Your task to perform on an android device: add a contact Image 0: 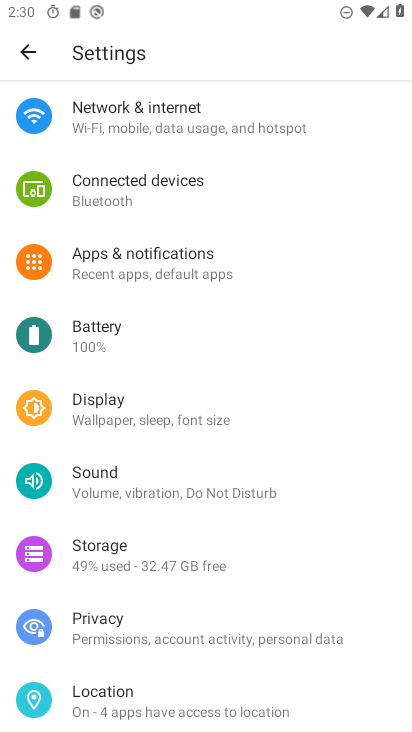
Step 0: press home button
Your task to perform on an android device: add a contact Image 1: 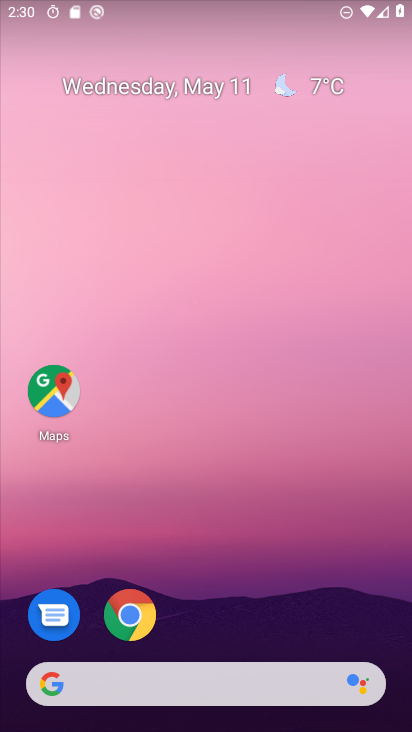
Step 1: drag from (195, 657) to (177, 147)
Your task to perform on an android device: add a contact Image 2: 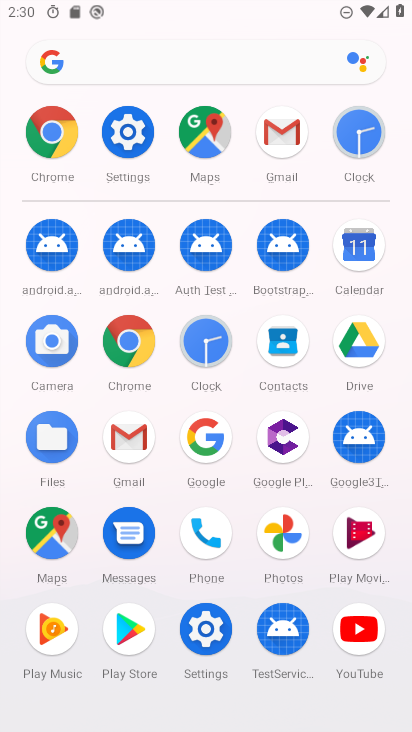
Step 2: click (290, 363)
Your task to perform on an android device: add a contact Image 3: 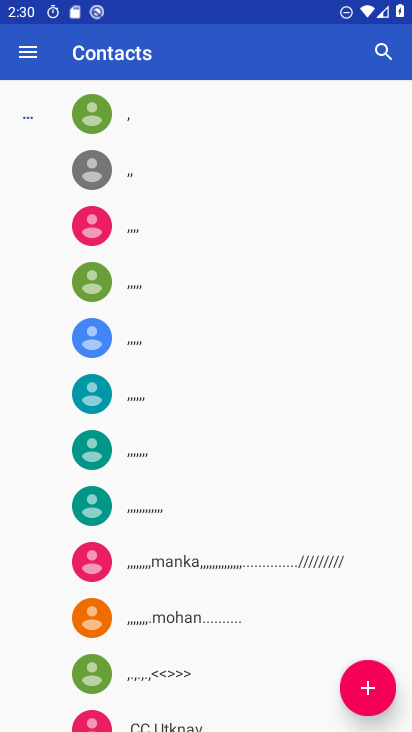
Step 3: click (358, 679)
Your task to perform on an android device: add a contact Image 4: 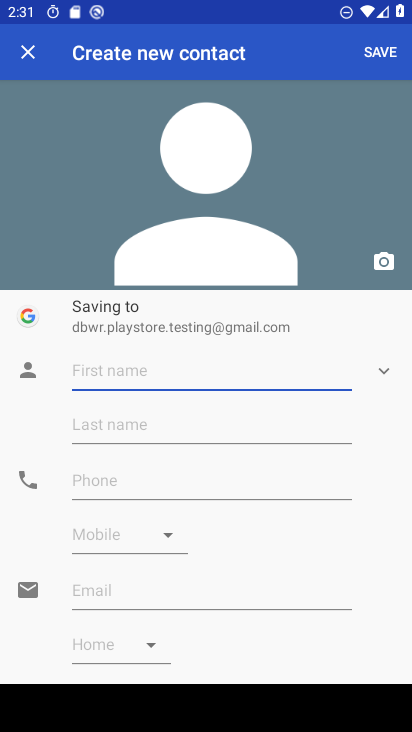
Step 4: type "zjdbvbds"
Your task to perform on an android device: add a contact Image 5: 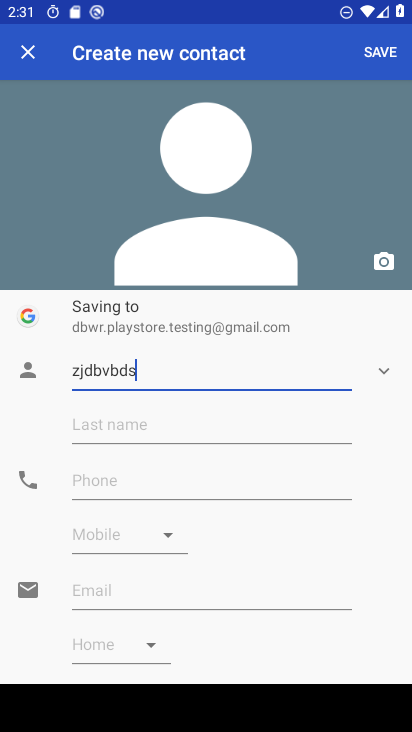
Step 5: click (173, 480)
Your task to perform on an android device: add a contact Image 6: 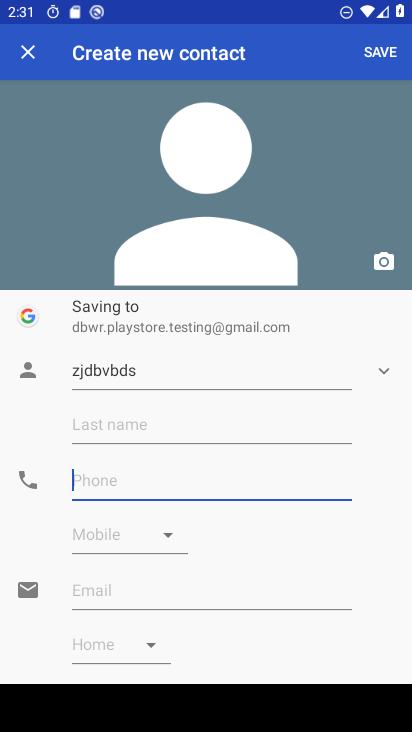
Step 6: type "833723"
Your task to perform on an android device: add a contact Image 7: 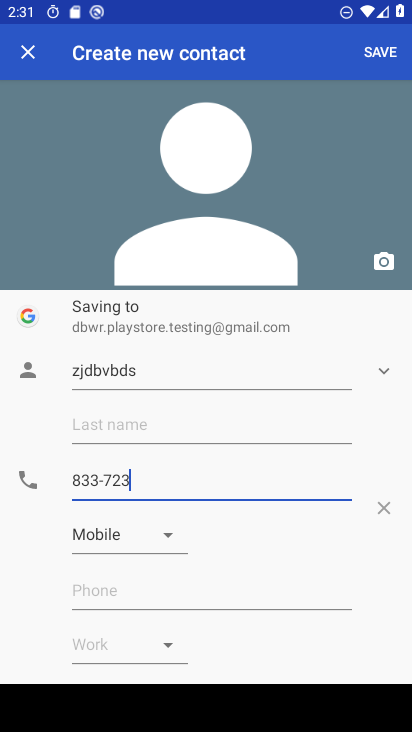
Step 7: click (371, 54)
Your task to perform on an android device: add a contact Image 8: 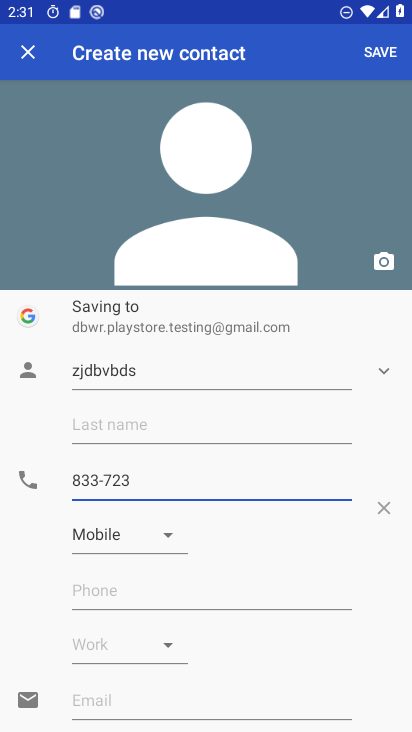
Step 8: task complete